Your task to perform on an android device: open a bookmark in the chrome app Image 0: 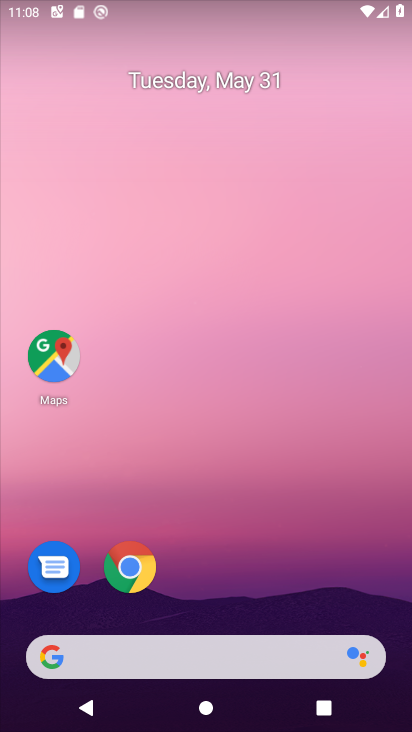
Step 0: click (120, 572)
Your task to perform on an android device: open a bookmark in the chrome app Image 1: 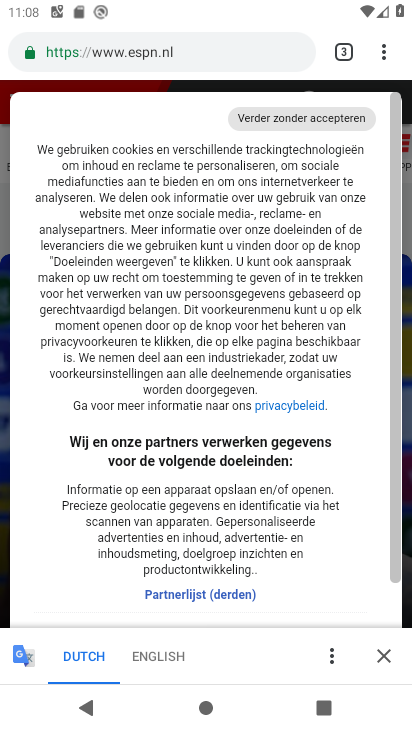
Step 1: click (386, 59)
Your task to perform on an android device: open a bookmark in the chrome app Image 2: 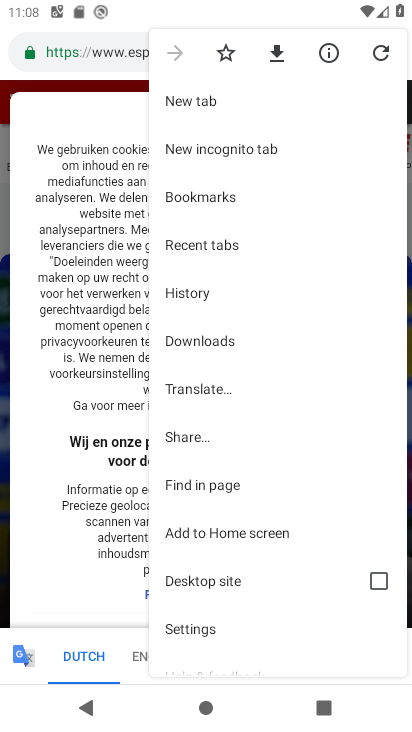
Step 2: click (229, 203)
Your task to perform on an android device: open a bookmark in the chrome app Image 3: 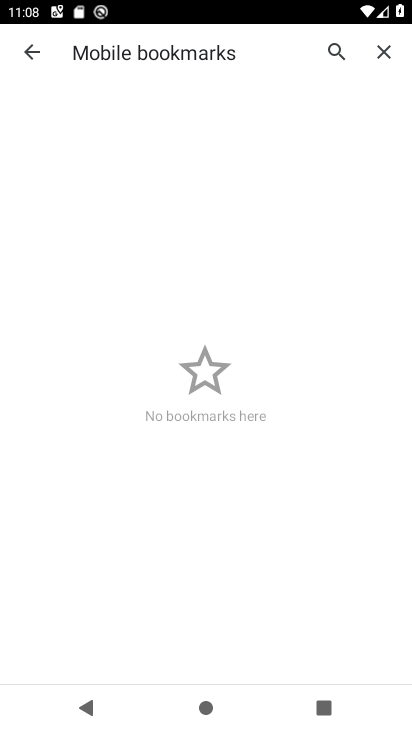
Step 3: task complete